Your task to perform on an android device: Open the web browser Image 0: 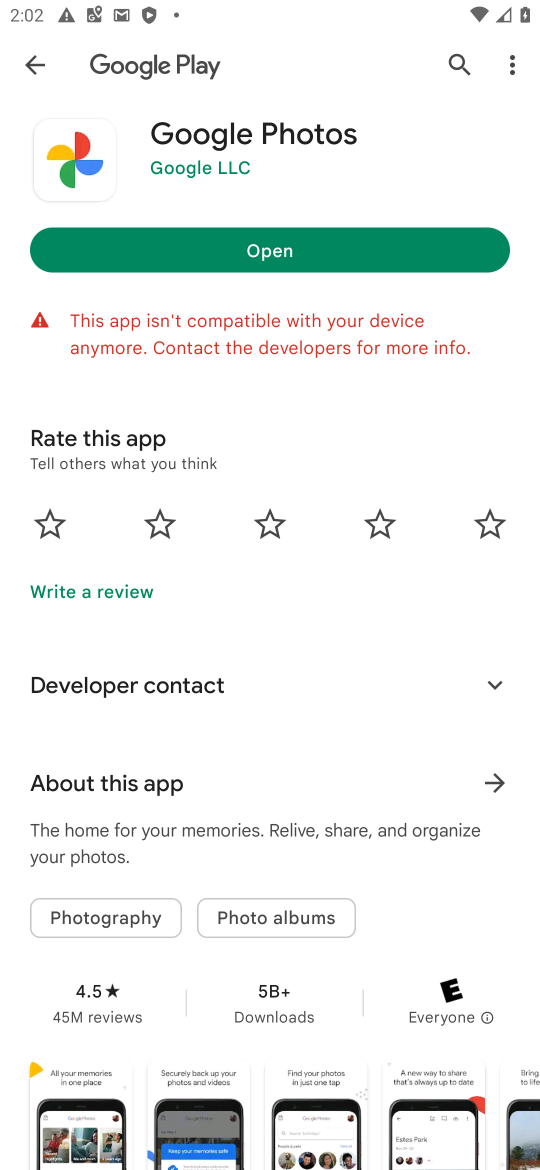
Step 0: press home button
Your task to perform on an android device: Open the web browser Image 1: 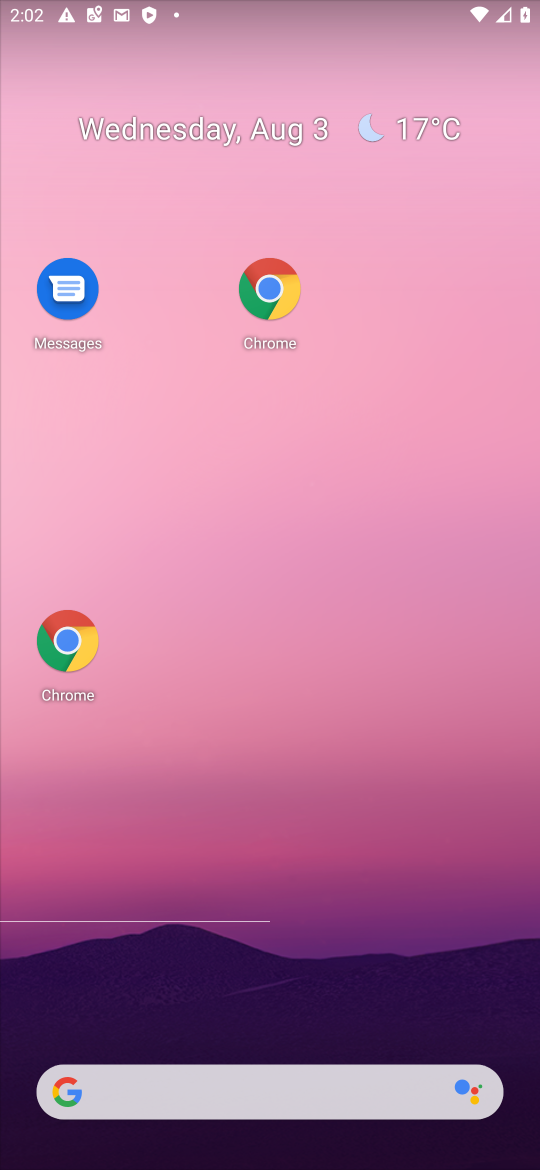
Step 1: click (256, 343)
Your task to perform on an android device: Open the web browser Image 2: 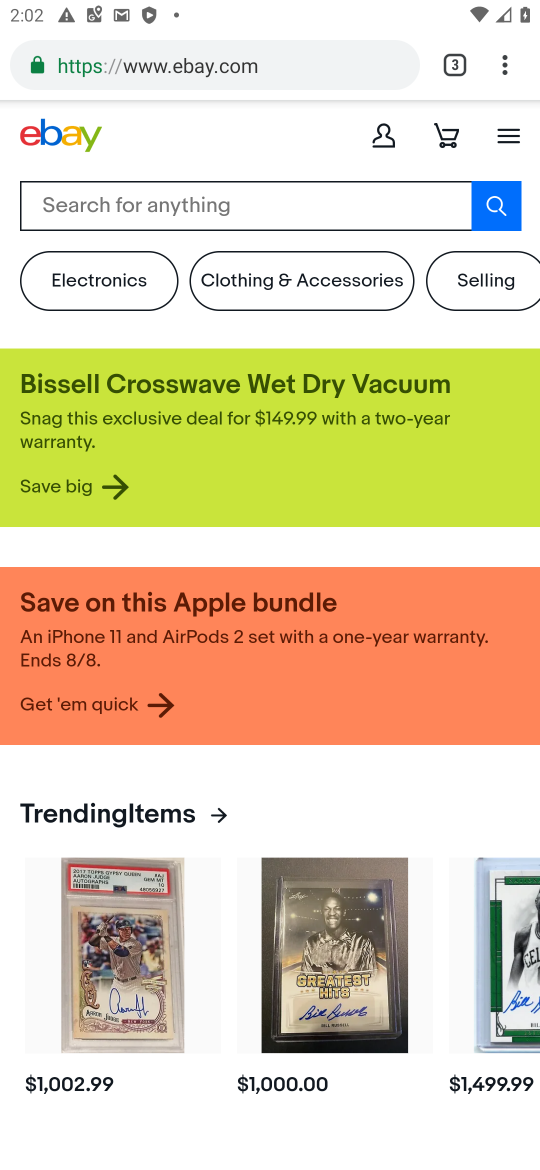
Step 2: task complete